Your task to perform on an android device: Go to Google maps Image 0: 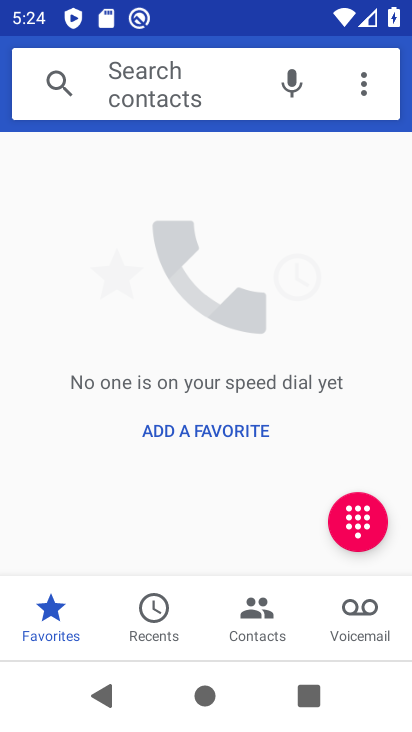
Step 0: press home button
Your task to perform on an android device: Go to Google maps Image 1: 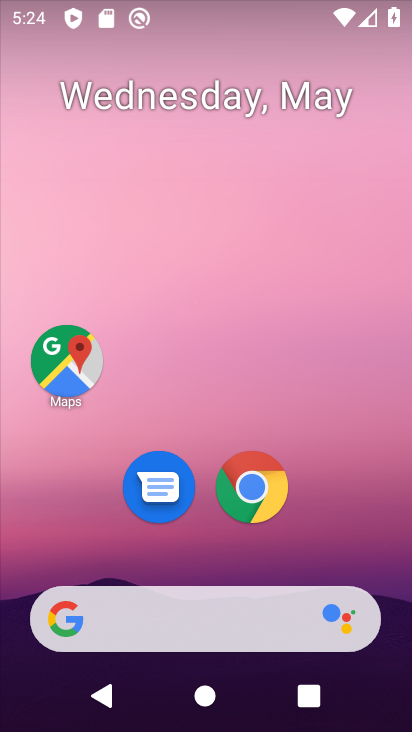
Step 1: click (48, 359)
Your task to perform on an android device: Go to Google maps Image 2: 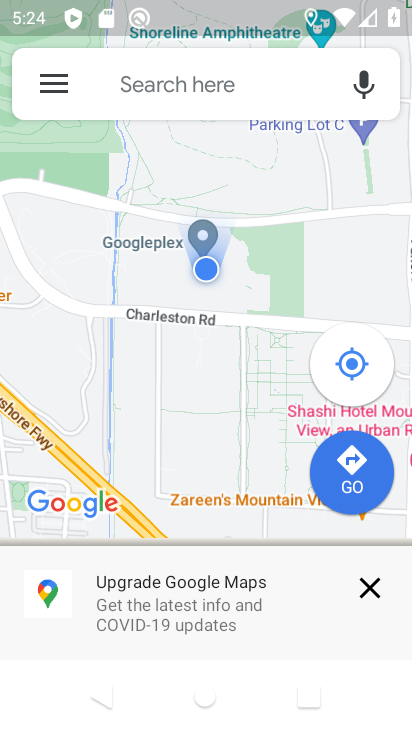
Step 2: task complete